Your task to perform on an android device: read, delete, or share a saved page in the chrome app Image 0: 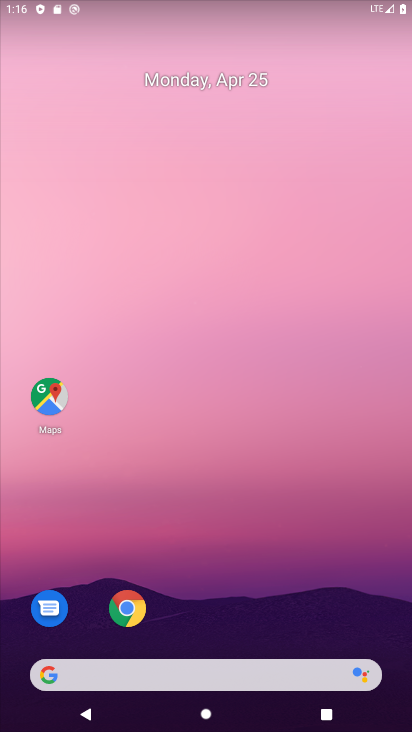
Step 0: click (123, 621)
Your task to perform on an android device: read, delete, or share a saved page in the chrome app Image 1: 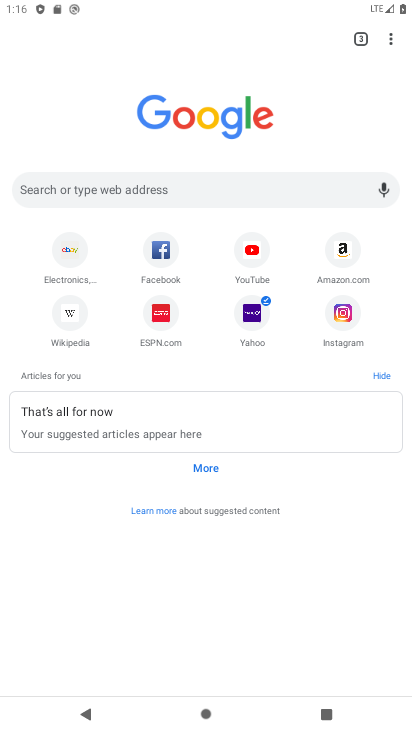
Step 1: click (387, 44)
Your task to perform on an android device: read, delete, or share a saved page in the chrome app Image 2: 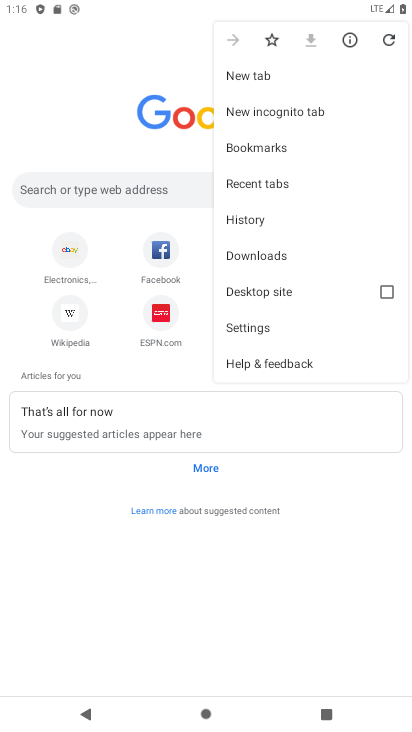
Step 2: click (275, 255)
Your task to perform on an android device: read, delete, or share a saved page in the chrome app Image 3: 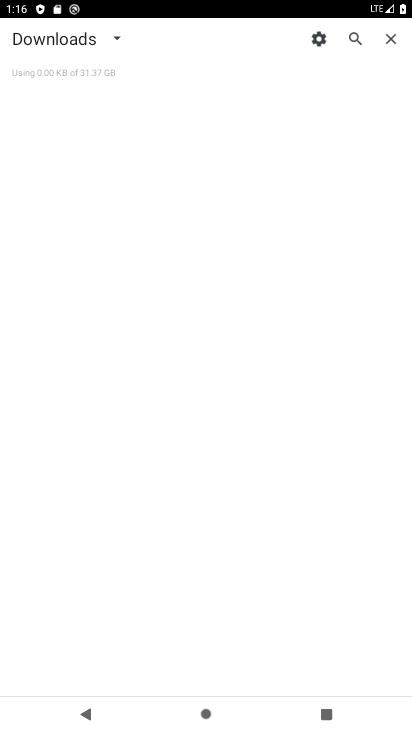
Step 3: task complete